Your task to perform on an android device: Search for pizza restaurants on Maps Image 0: 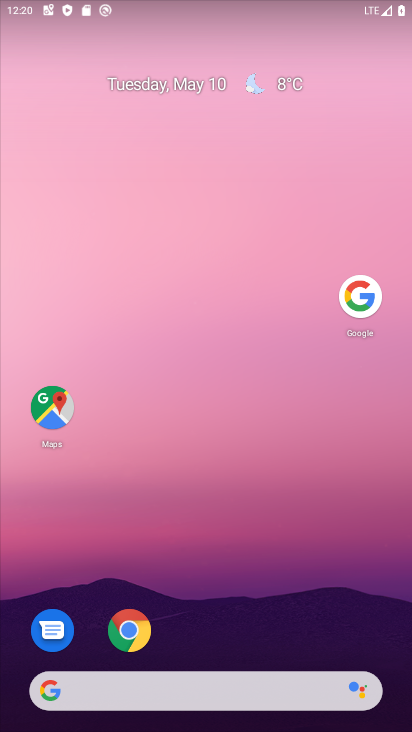
Step 0: press home button
Your task to perform on an android device: Search for pizza restaurants on Maps Image 1: 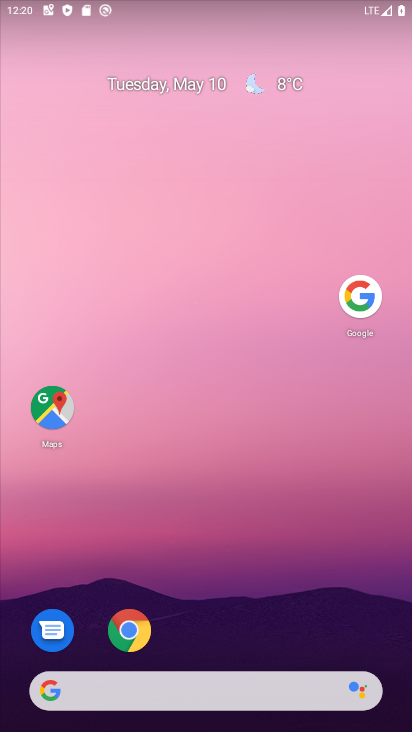
Step 1: click (56, 409)
Your task to perform on an android device: Search for pizza restaurants on Maps Image 2: 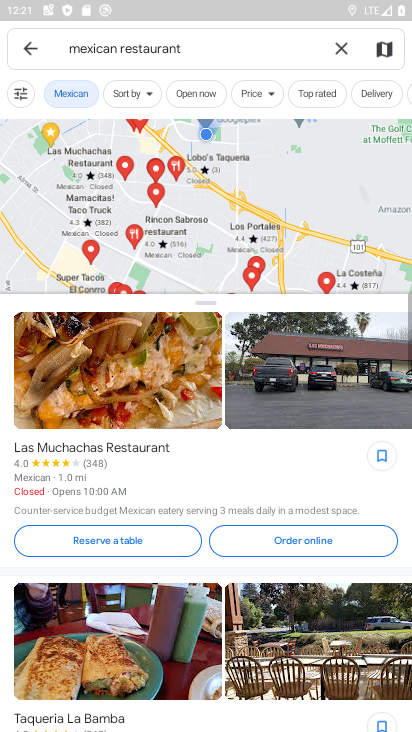
Step 2: click (348, 46)
Your task to perform on an android device: Search for pizza restaurants on Maps Image 3: 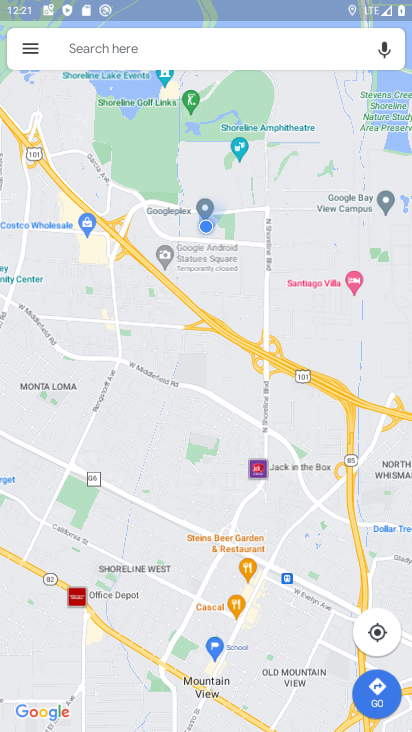
Step 3: click (161, 43)
Your task to perform on an android device: Search for pizza restaurants on Maps Image 4: 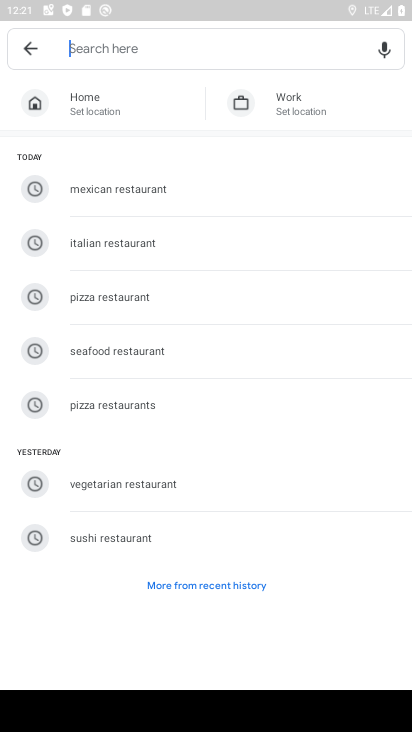
Step 4: click (94, 301)
Your task to perform on an android device: Search for pizza restaurants on Maps Image 5: 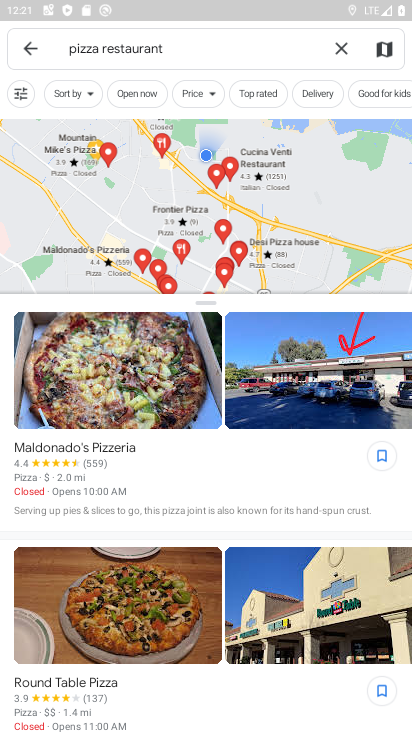
Step 5: task complete